Your task to perform on an android device: Open privacy settings Image 0: 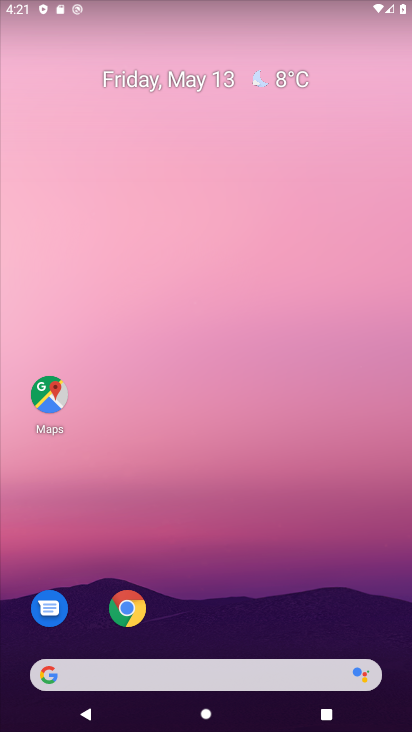
Step 0: drag from (213, 587) to (212, 140)
Your task to perform on an android device: Open privacy settings Image 1: 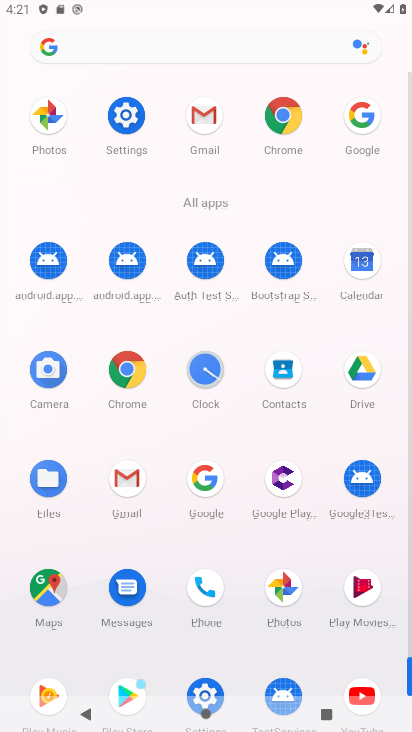
Step 1: click (127, 119)
Your task to perform on an android device: Open privacy settings Image 2: 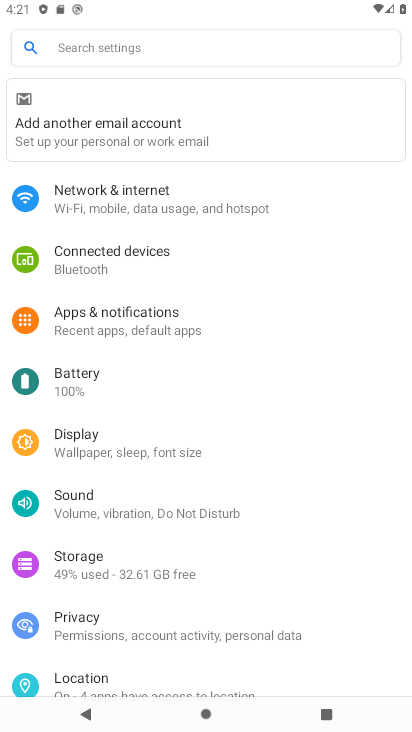
Step 2: click (97, 624)
Your task to perform on an android device: Open privacy settings Image 3: 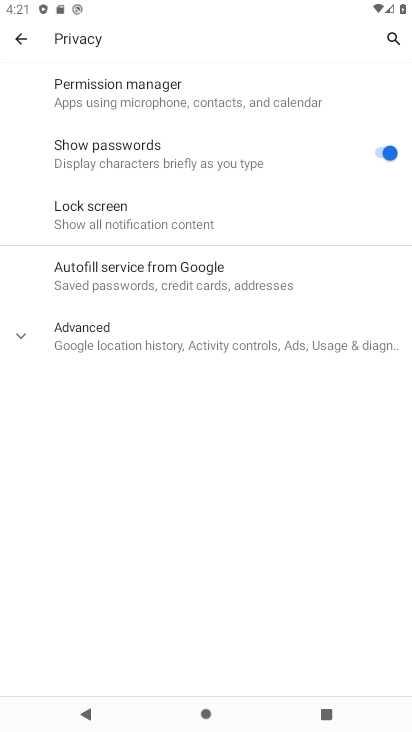
Step 3: task complete